Your task to perform on an android device: Open battery settings Image 0: 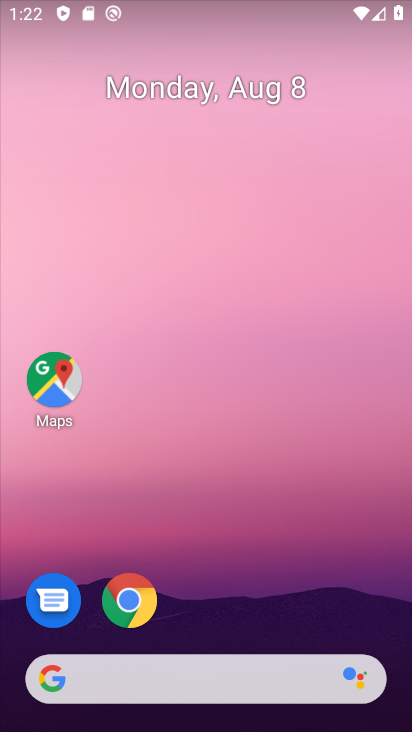
Step 0: press home button
Your task to perform on an android device: Open battery settings Image 1: 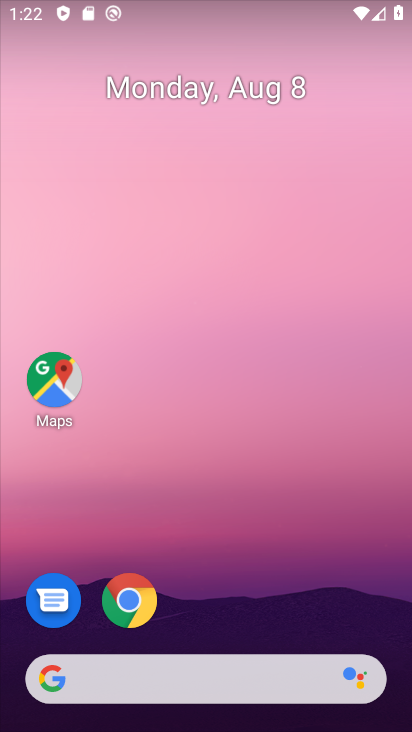
Step 1: drag from (281, 623) to (275, 197)
Your task to perform on an android device: Open battery settings Image 2: 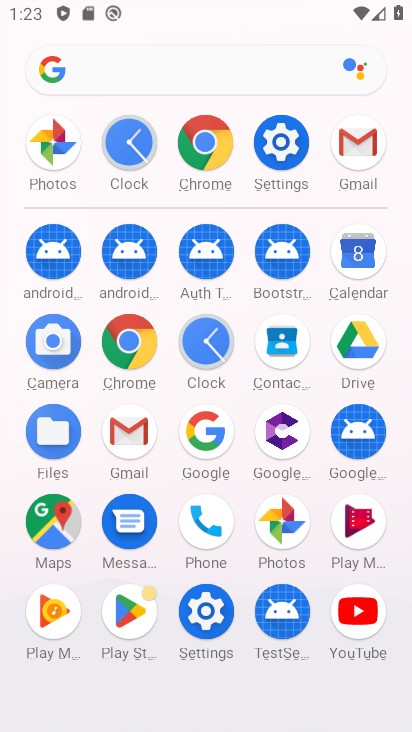
Step 2: click (192, 628)
Your task to perform on an android device: Open battery settings Image 3: 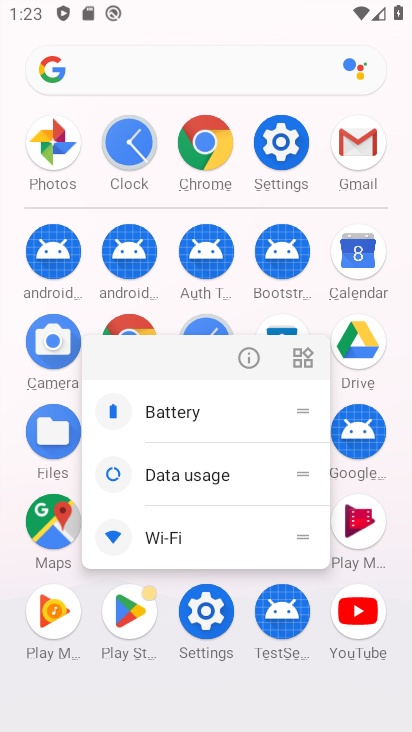
Step 3: click (217, 619)
Your task to perform on an android device: Open battery settings Image 4: 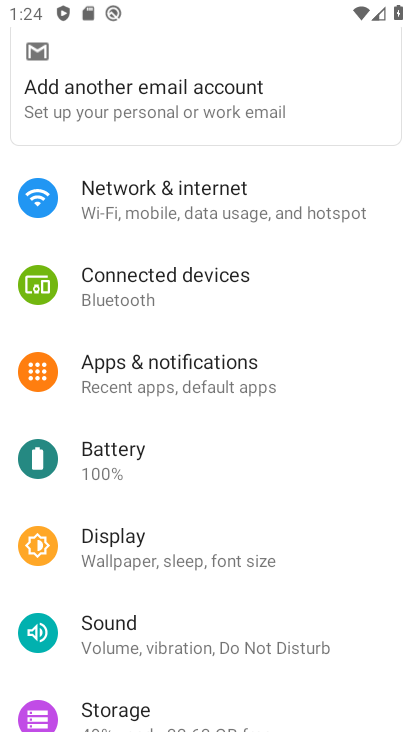
Step 4: click (175, 457)
Your task to perform on an android device: Open battery settings Image 5: 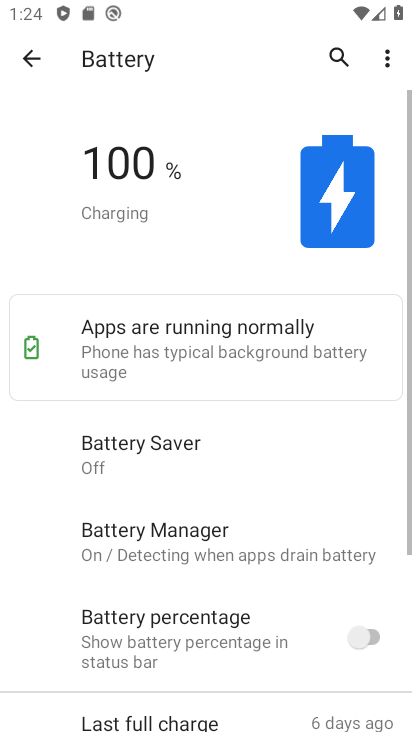
Step 5: task complete